Your task to perform on an android device: Play the last video I watched on Youtube Image 0: 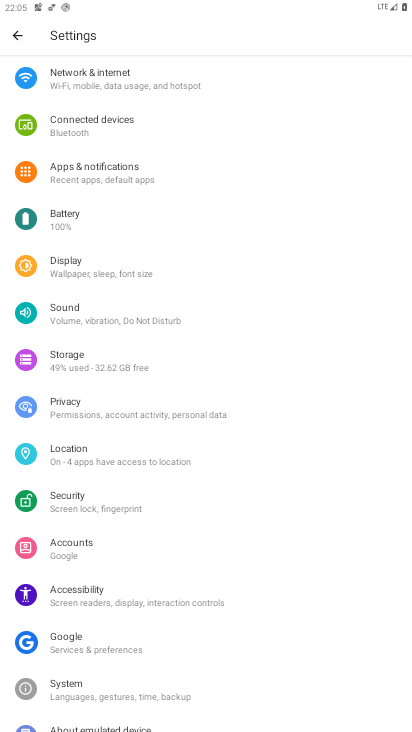
Step 0: press home button
Your task to perform on an android device: Play the last video I watched on Youtube Image 1: 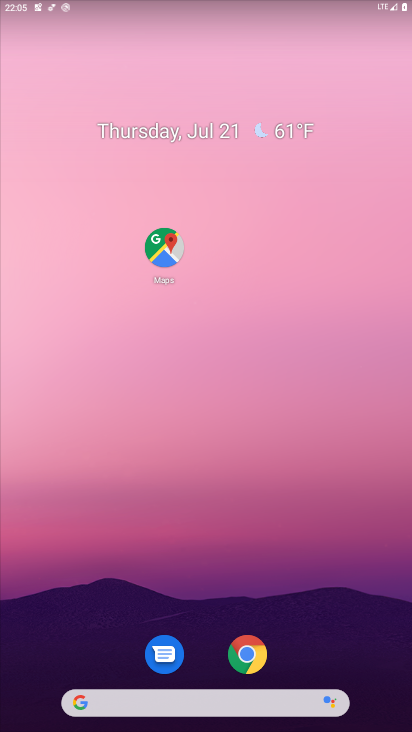
Step 1: drag from (40, 642) to (191, 63)
Your task to perform on an android device: Play the last video I watched on Youtube Image 2: 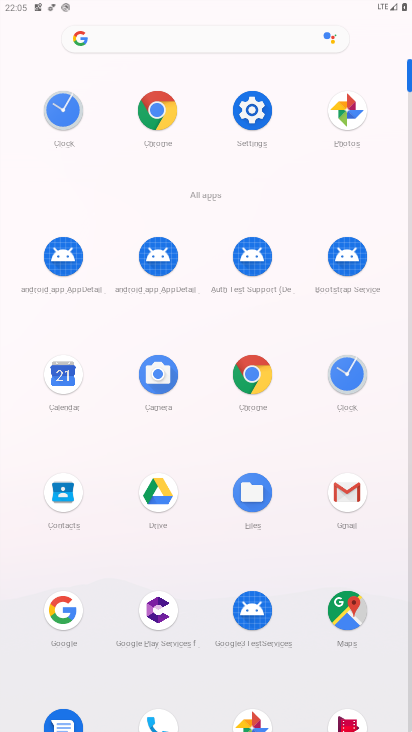
Step 2: drag from (185, 679) to (184, 419)
Your task to perform on an android device: Play the last video I watched on Youtube Image 3: 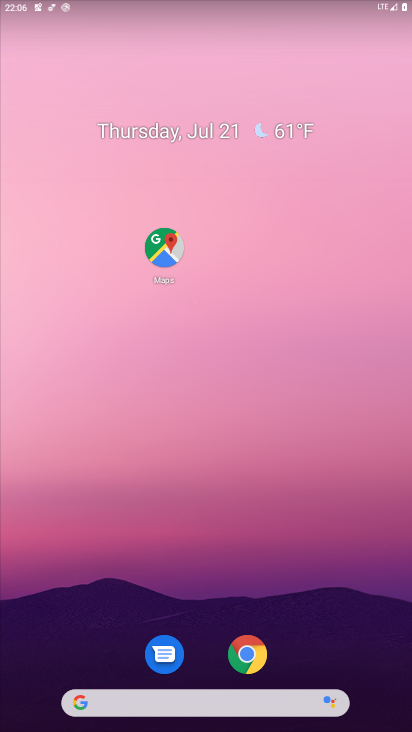
Step 3: drag from (24, 682) to (224, 138)
Your task to perform on an android device: Play the last video I watched on Youtube Image 4: 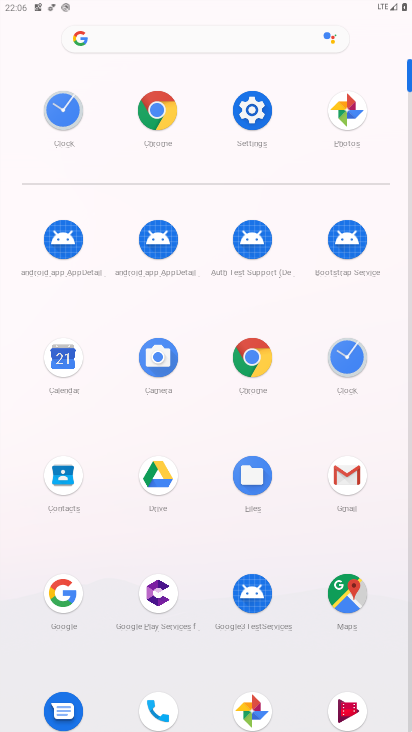
Step 4: drag from (222, 660) to (193, 93)
Your task to perform on an android device: Play the last video I watched on Youtube Image 5: 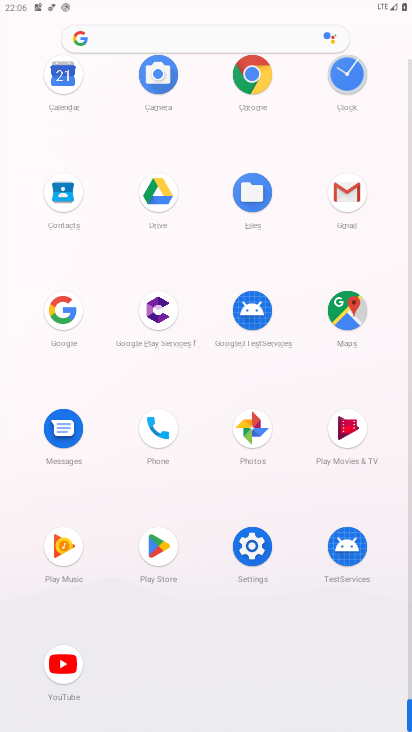
Step 5: click (51, 650)
Your task to perform on an android device: Play the last video I watched on Youtube Image 6: 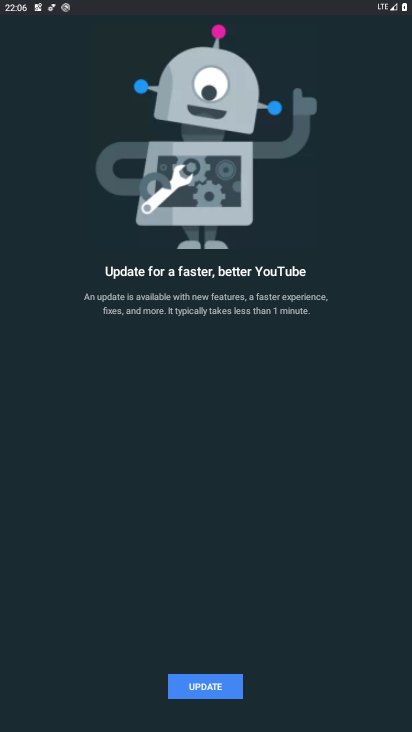
Step 6: task complete